Your task to perform on an android device: change notifications settings Image 0: 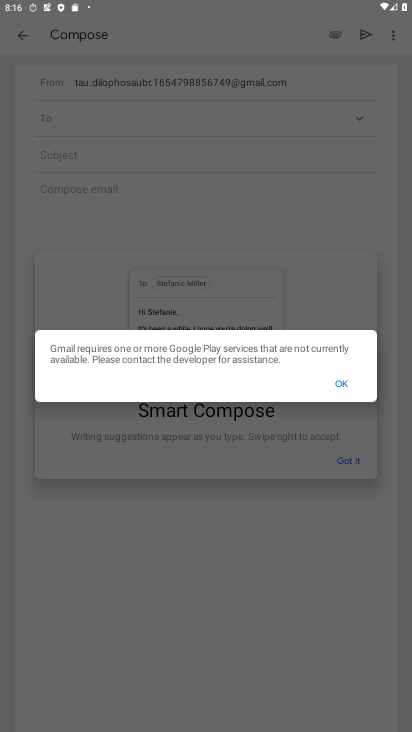
Step 0: press home button
Your task to perform on an android device: change notifications settings Image 1: 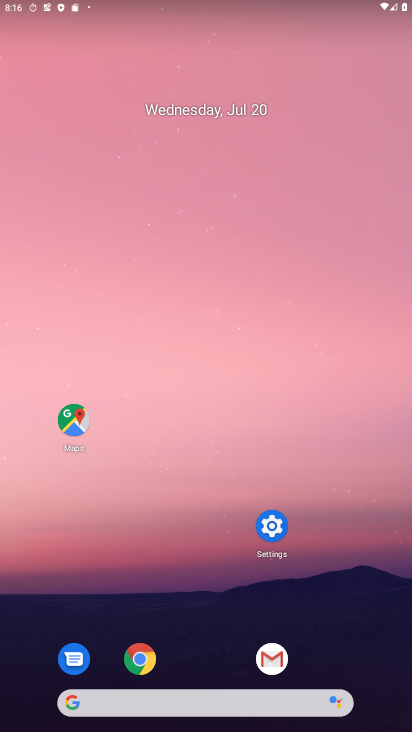
Step 1: click (274, 532)
Your task to perform on an android device: change notifications settings Image 2: 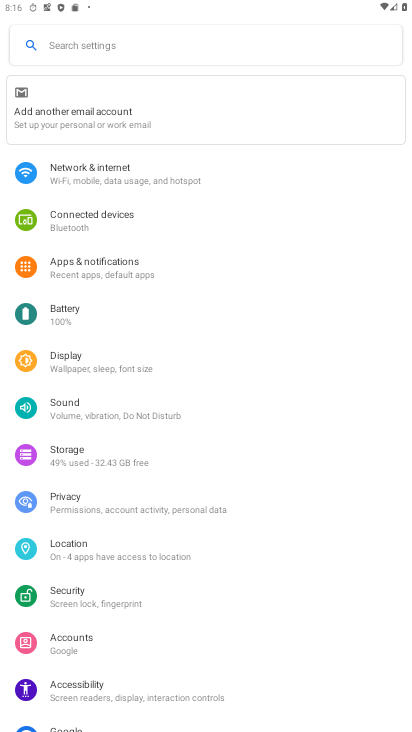
Step 2: click (97, 40)
Your task to perform on an android device: change notifications settings Image 3: 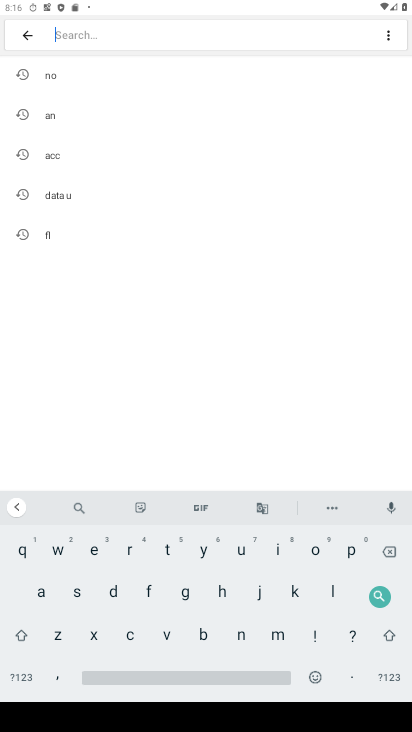
Step 3: click (53, 76)
Your task to perform on an android device: change notifications settings Image 4: 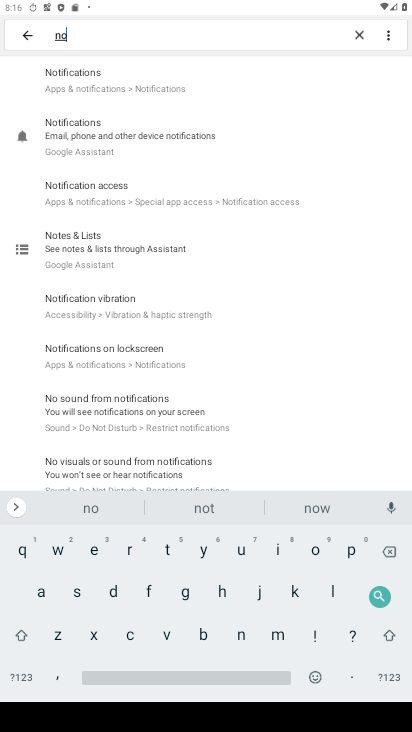
Step 4: click (80, 76)
Your task to perform on an android device: change notifications settings Image 5: 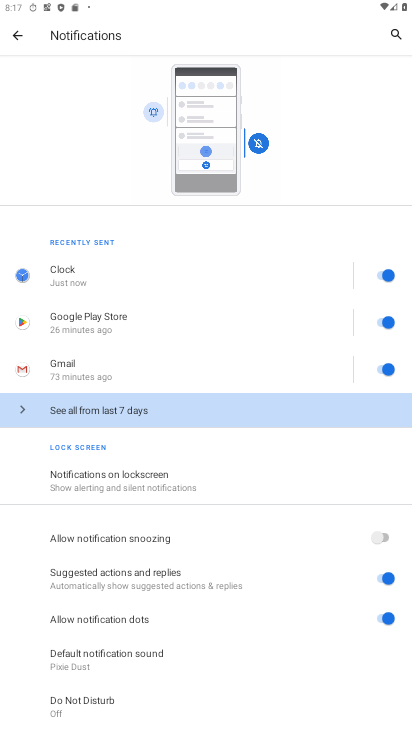
Step 5: click (126, 475)
Your task to perform on an android device: change notifications settings Image 6: 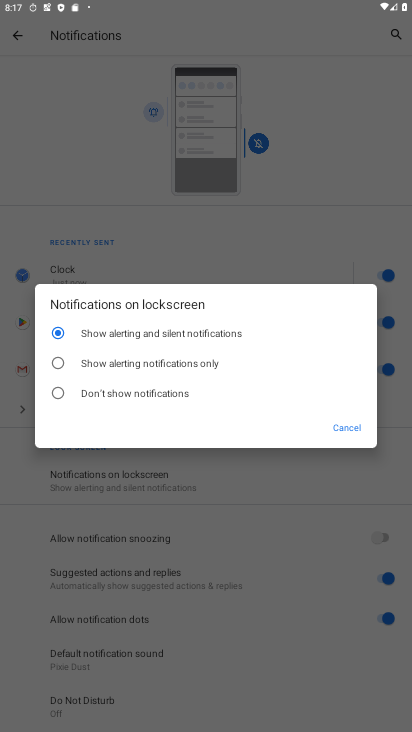
Step 6: click (109, 365)
Your task to perform on an android device: change notifications settings Image 7: 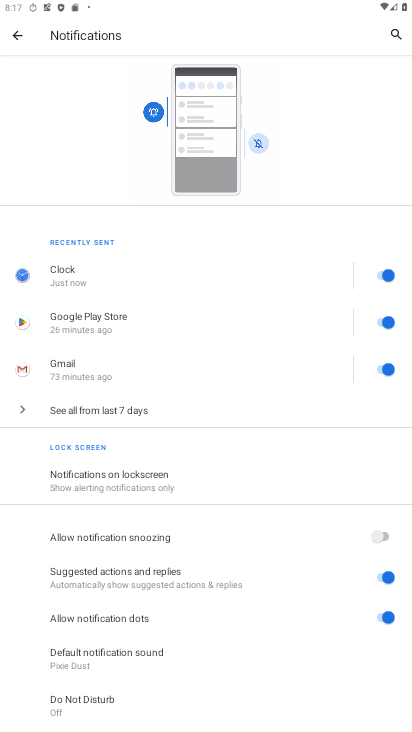
Step 7: task complete